Your task to perform on an android device: set default search engine in the chrome app Image 0: 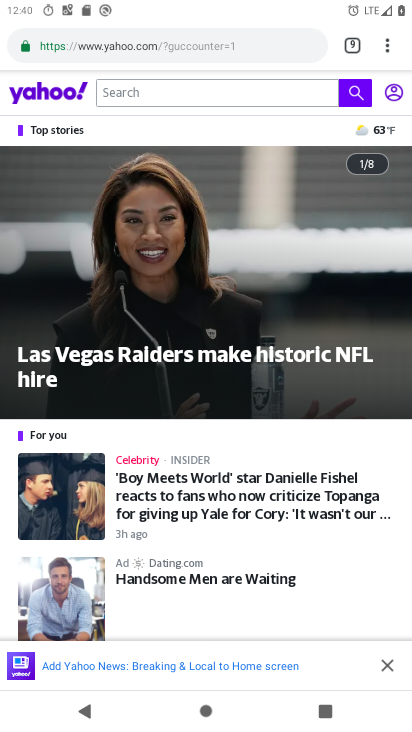
Step 0: press home button
Your task to perform on an android device: set default search engine in the chrome app Image 1: 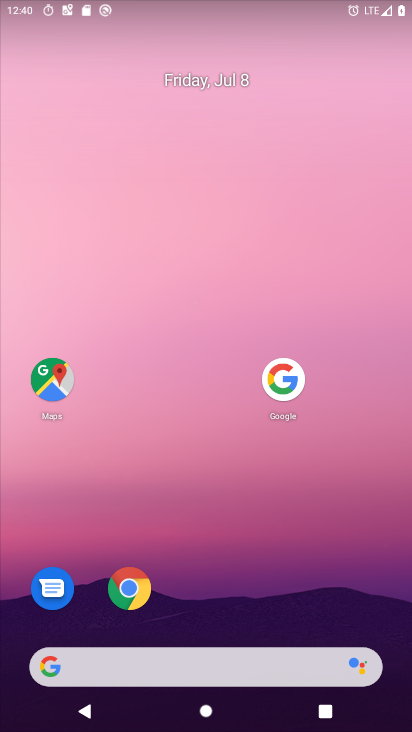
Step 1: click (138, 590)
Your task to perform on an android device: set default search engine in the chrome app Image 2: 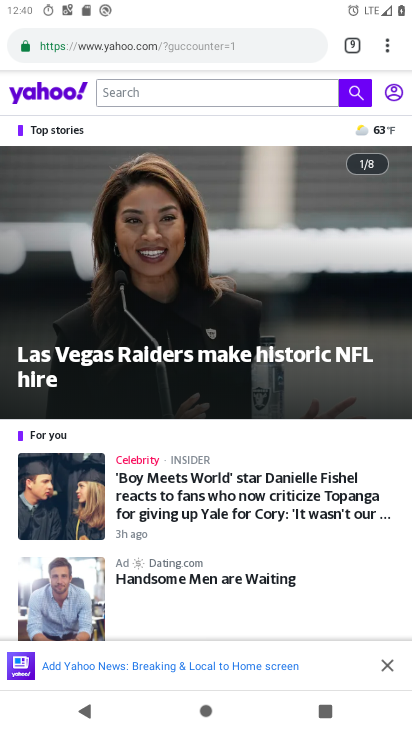
Step 2: drag from (387, 43) to (243, 550)
Your task to perform on an android device: set default search engine in the chrome app Image 3: 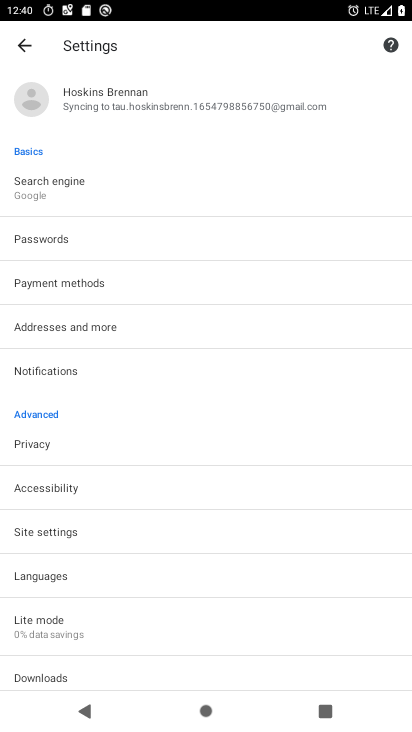
Step 3: click (55, 187)
Your task to perform on an android device: set default search engine in the chrome app Image 4: 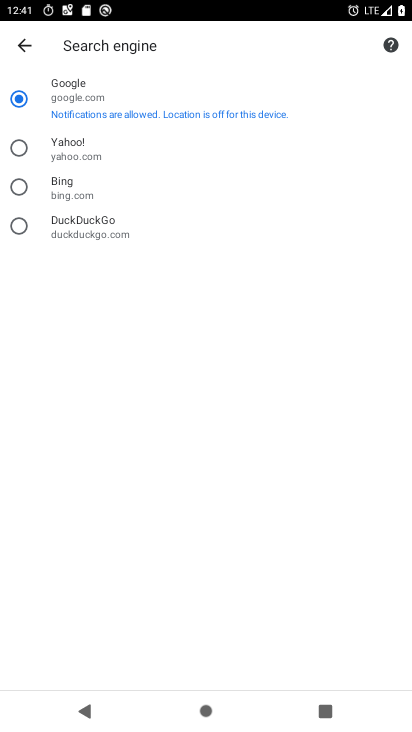
Step 4: click (20, 145)
Your task to perform on an android device: set default search engine in the chrome app Image 5: 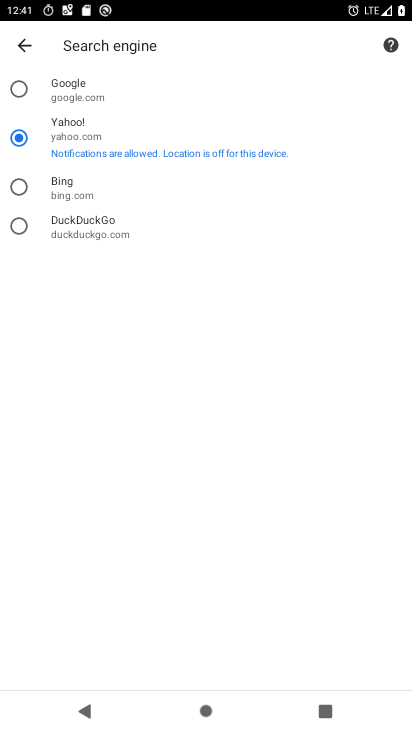
Step 5: task complete